Your task to perform on an android device: Open notification settings Image 0: 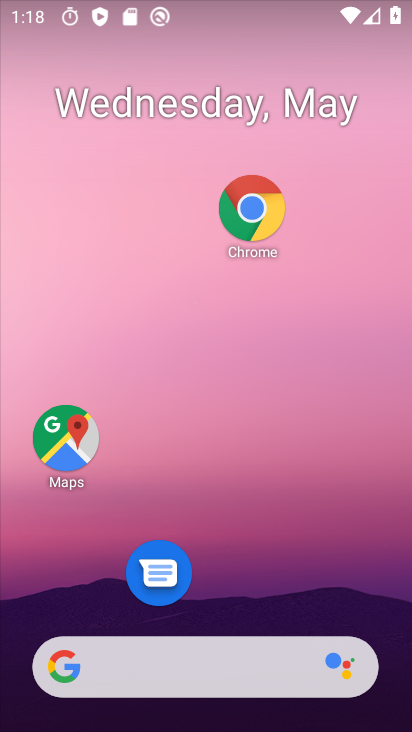
Step 0: drag from (232, 505) to (247, 14)
Your task to perform on an android device: Open notification settings Image 1: 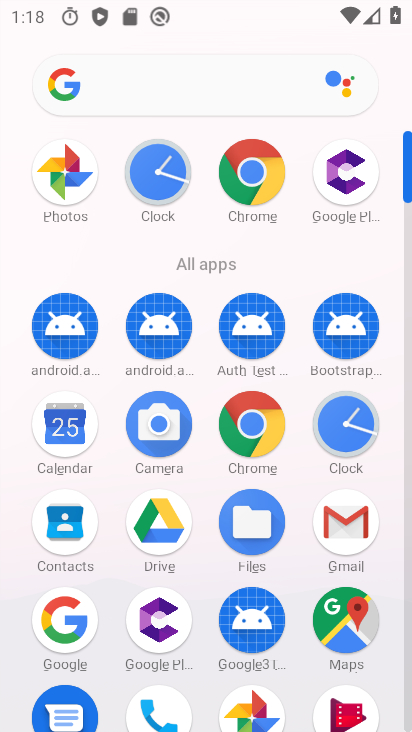
Step 1: drag from (230, 670) to (235, 230)
Your task to perform on an android device: Open notification settings Image 2: 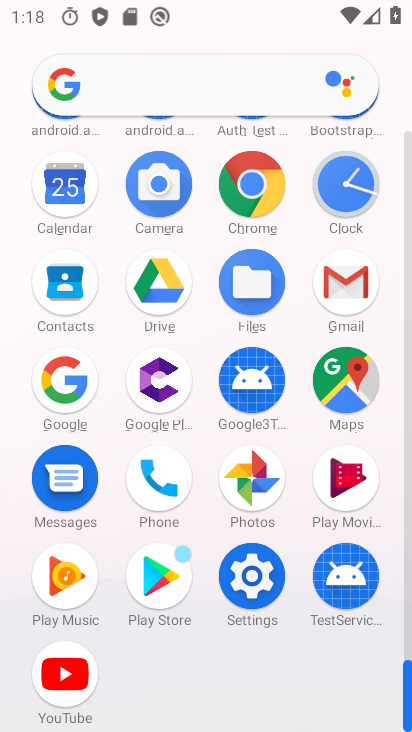
Step 2: click (241, 603)
Your task to perform on an android device: Open notification settings Image 3: 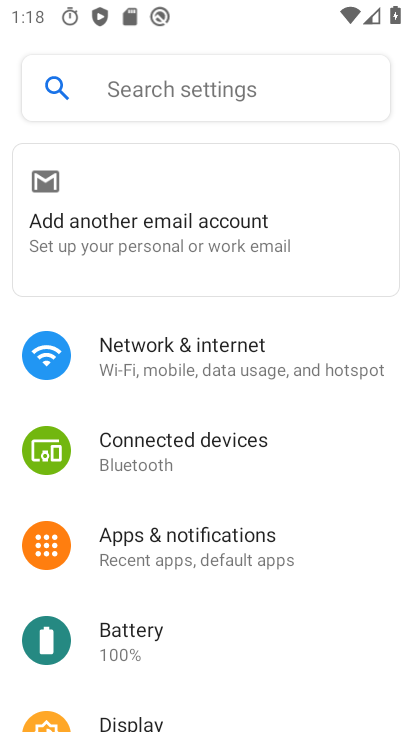
Step 3: click (166, 571)
Your task to perform on an android device: Open notification settings Image 4: 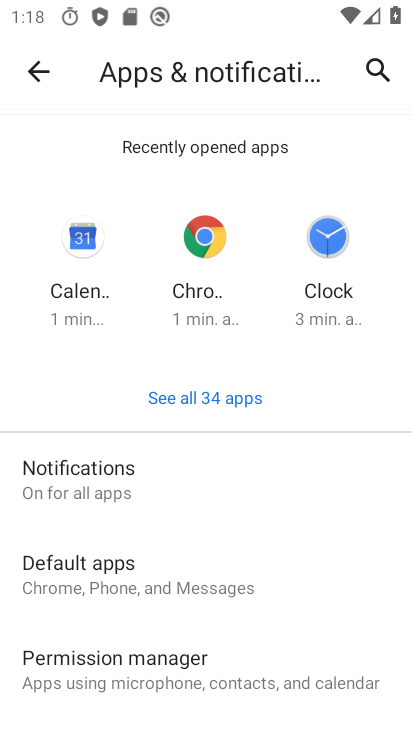
Step 4: task complete